Your task to perform on an android device: Toggle the flashlight Image 0: 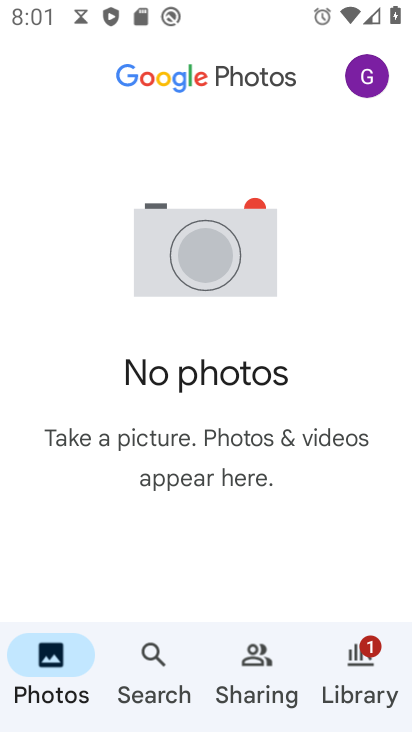
Step 0: press home button
Your task to perform on an android device: Toggle the flashlight Image 1: 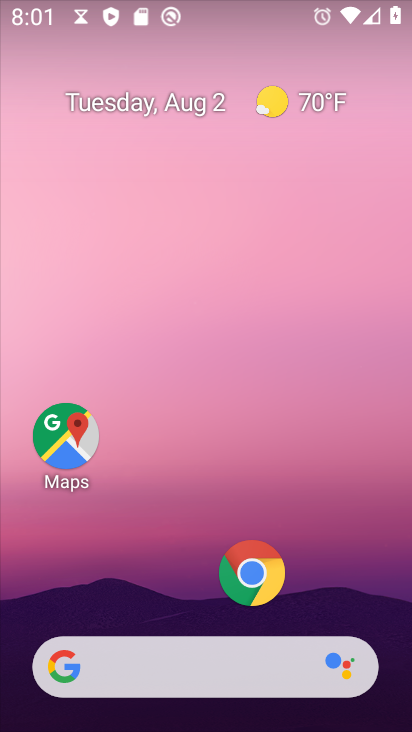
Step 1: drag from (188, 616) to (234, 16)
Your task to perform on an android device: Toggle the flashlight Image 2: 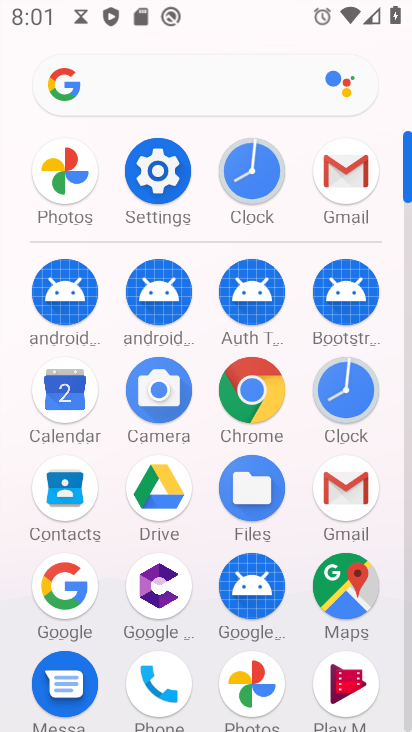
Step 2: click (154, 146)
Your task to perform on an android device: Toggle the flashlight Image 3: 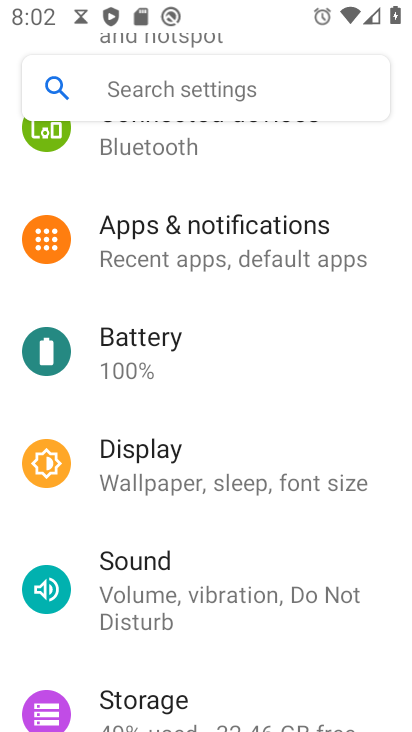
Step 3: click (152, 82)
Your task to perform on an android device: Toggle the flashlight Image 4: 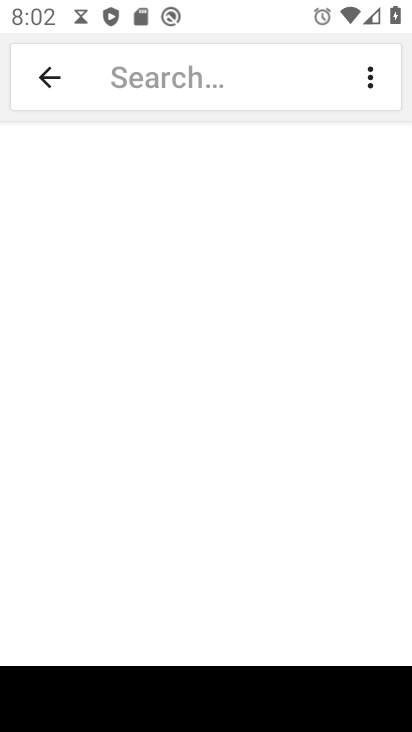
Step 4: type "flashlight"
Your task to perform on an android device: Toggle the flashlight Image 5: 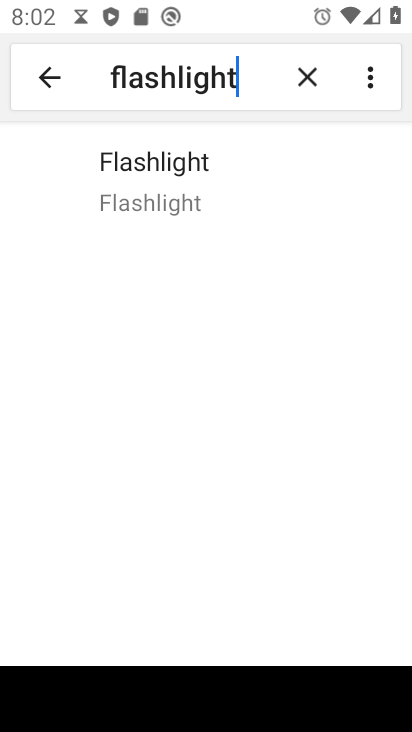
Step 5: click (185, 181)
Your task to perform on an android device: Toggle the flashlight Image 6: 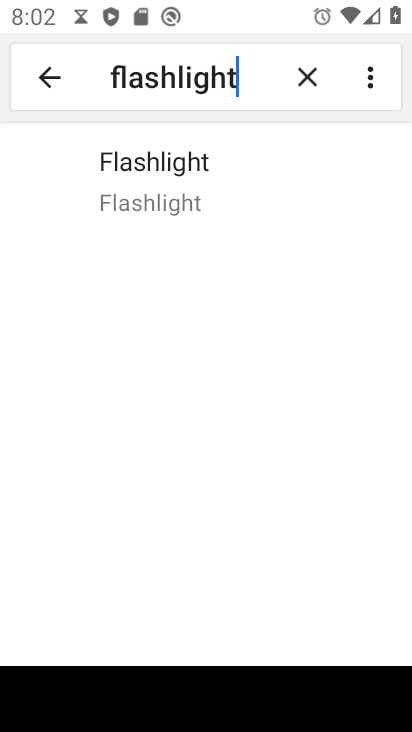
Step 6: click (195, 181)
Your task to perform on an android device: Toggle the flashlight Image 7: 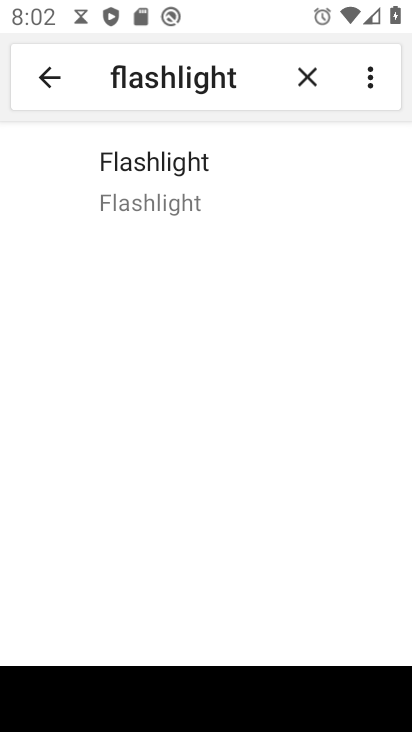
Step 7: task complete